Your task to perform on an android device: turn smart compose on in the gmail app Image 0: 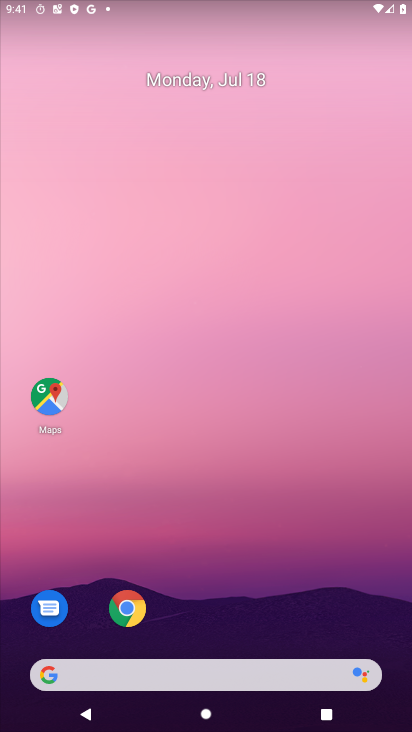
Step 0: drag from (190, 633) to (201, 117)
Your task to perform on an android device: turn smart compose on in the gmail app Image 1: 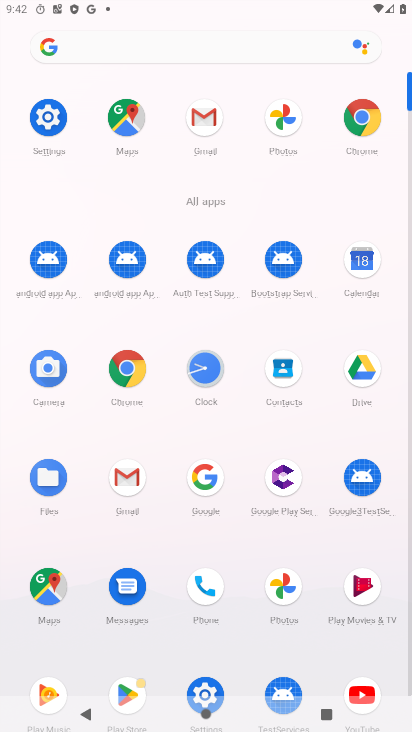
Step 1: click (124, 481)
Your task to perform on an android device: turn smart compose on in the gmail app Image 2: 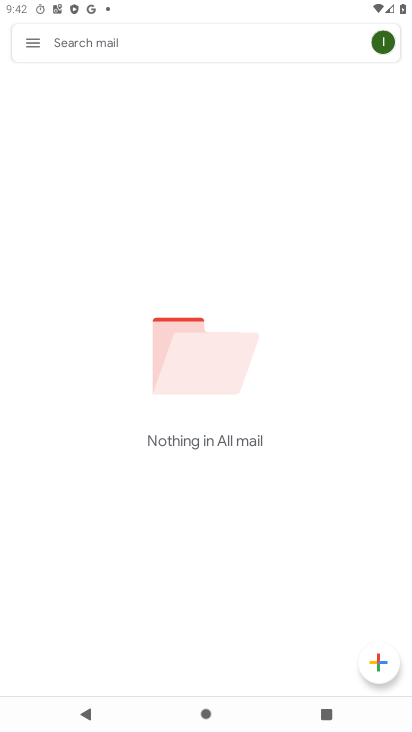
Step 2: click (29, 45)
Your task to perform on an android device: turn smart compose on in the gmail app Image 3: 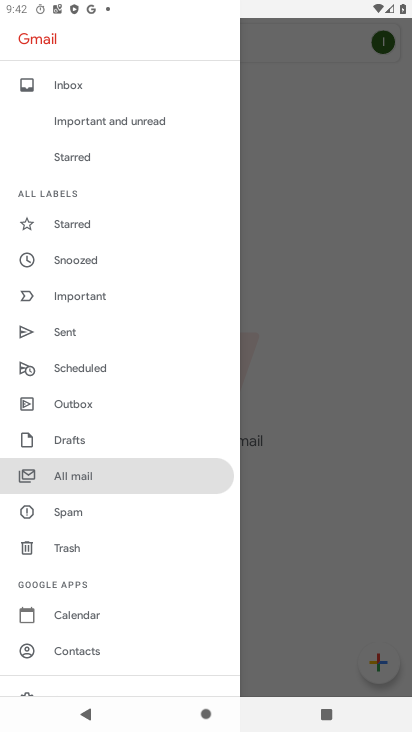
Step 3: drag from (112, 651) to (123, 383)
Your task to perform on an android device: turn smart compose on in the gmail app Image 4: 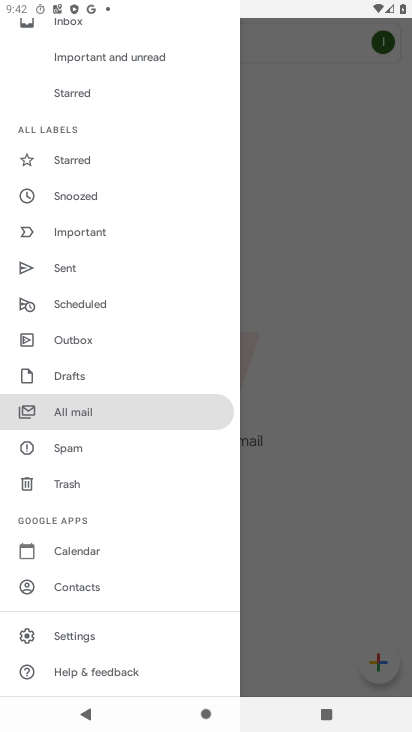
Step 4: click (84, 636)
Your task to perform on an android device: turn smart compose on in the gmail app Image 5: 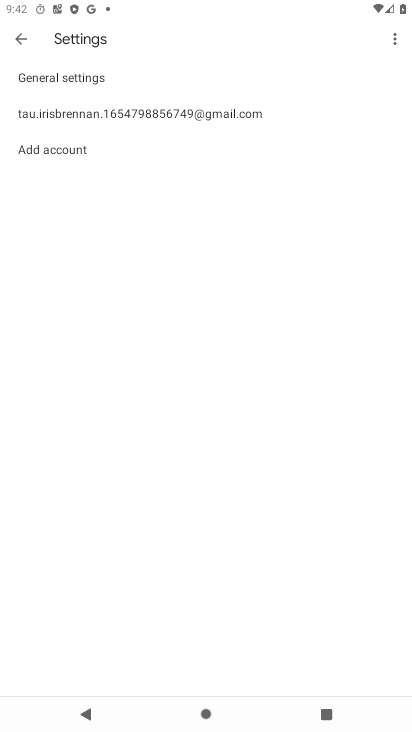
Step 5: click (149, 117)
Your task to perform on an android device: turn smart compose on in the gmail app Image 6: 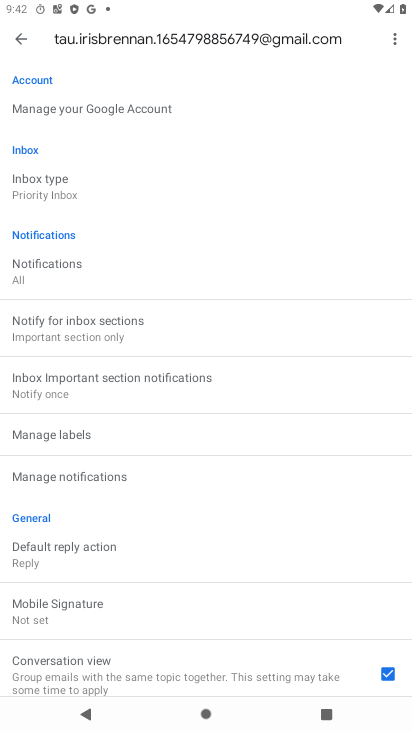
Step 6: task complete